Your task to perform on an android device: delete the emails in spam in the gmail app Image 0: 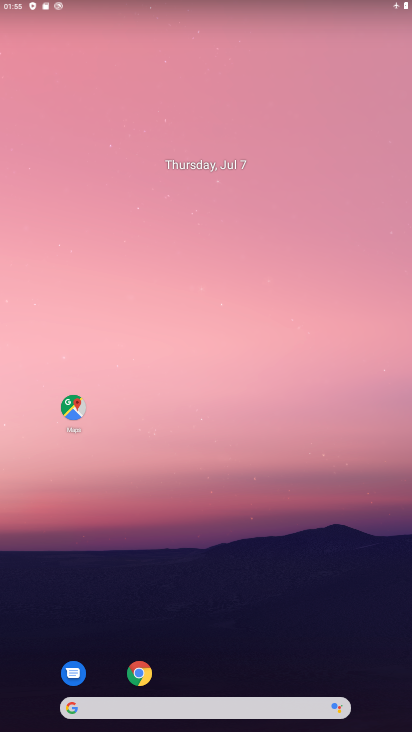
Step 0: drag from (234, 651) to (231, 131)
Your task to perform on an android device: delete the emails in spam in the gmail app Image 1: 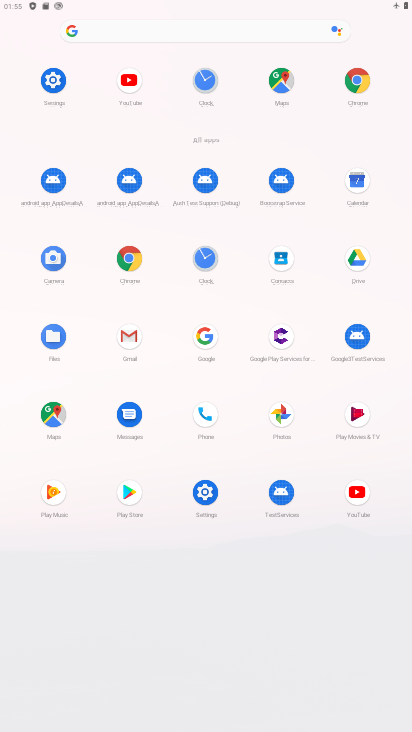
Step 1: click (138, 338)
Your task to perform on an android device: delete the emails in spam in the gmail app Image 2: 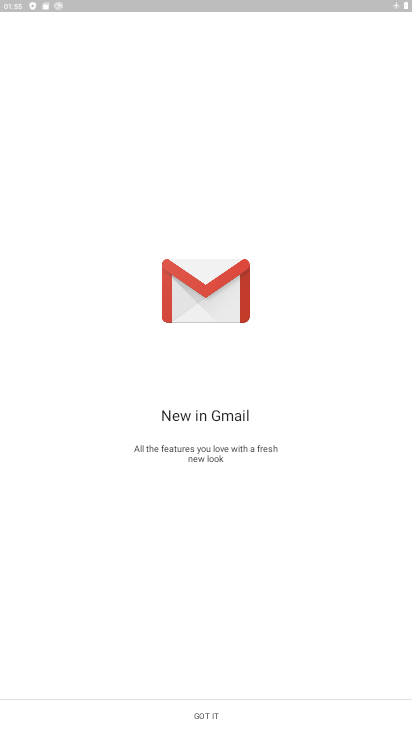
Step 2: click (263, 718)
Your task to perform on an android device: delete the emails in spam in the gmail app Image 3: 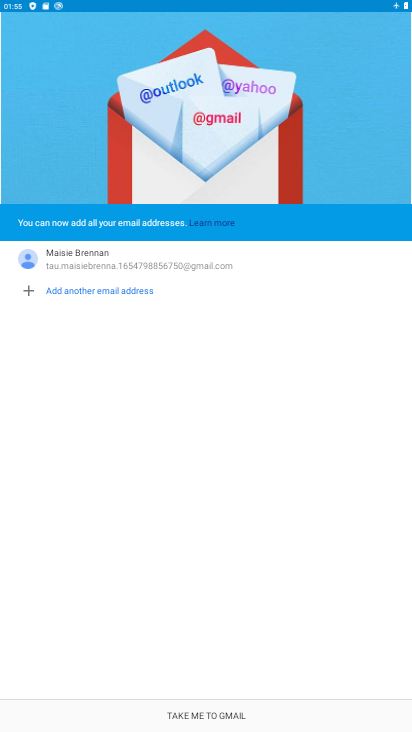
Step 3: click (263, 718)
Your task to perform on an android device: delete the emails in spam in the gmail app Image 4: 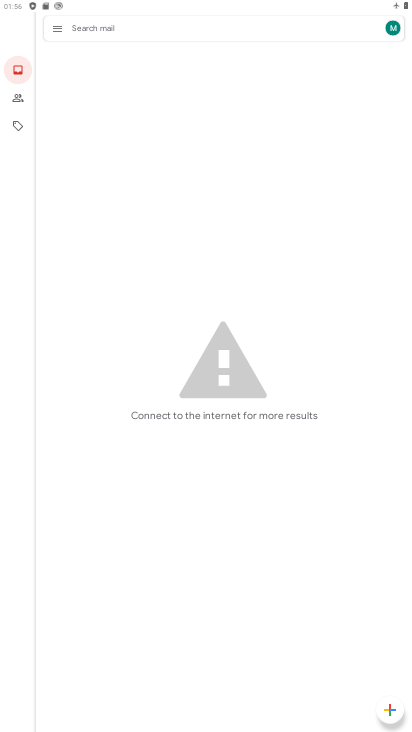
Step 4: click (55, 28)
Your task to perform on an android device: delete the emails in spam in the gmail app Image 5: 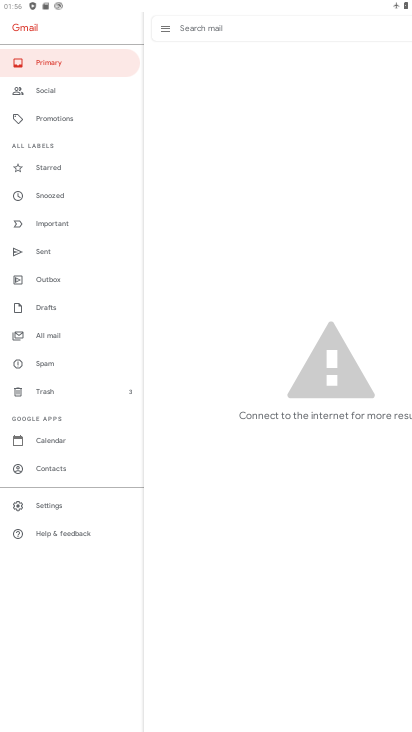
Step 5: click (47, 369)
Your task to perform on an android device: delete the emails in spam in the gmail app Image 6: 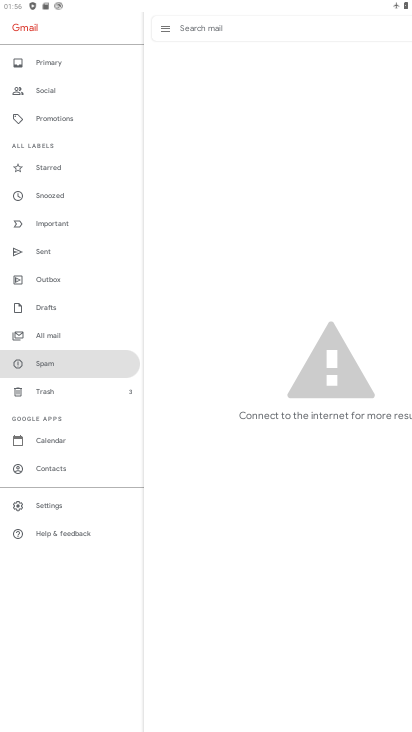
Step 6: task complete